Your task to perform on an android device: Go to calendar. Show me events next week Image 0: 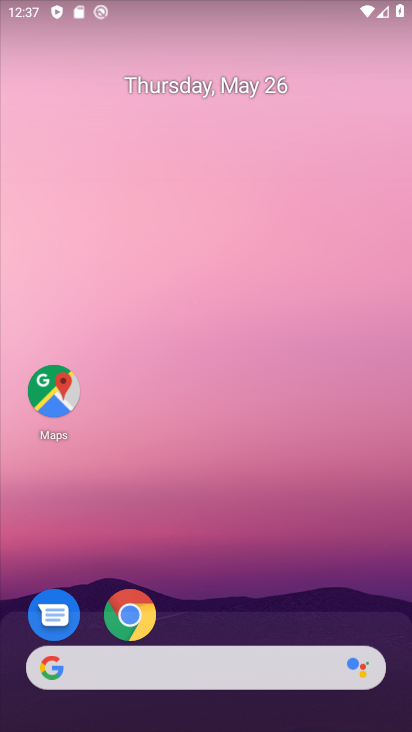
Step 0: drag from (264, 633) to (335, 134)
Your task to perform on an android device: Go to calendar. Show me events next week Image 1: 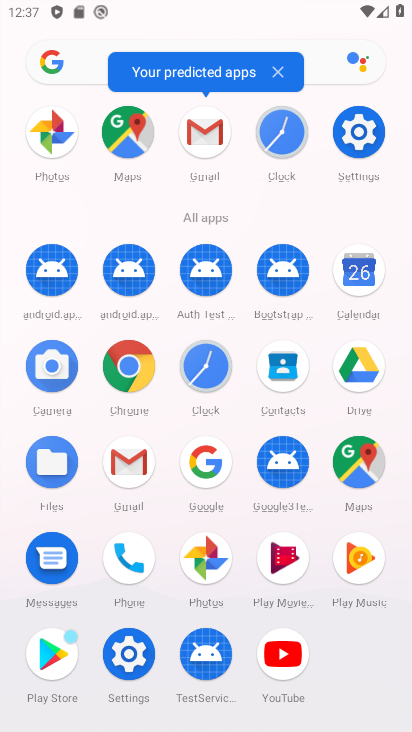
Step 1: click (356, 271)
Your task to perform on an android device: Go to calendar. Show me events next week Image 2: 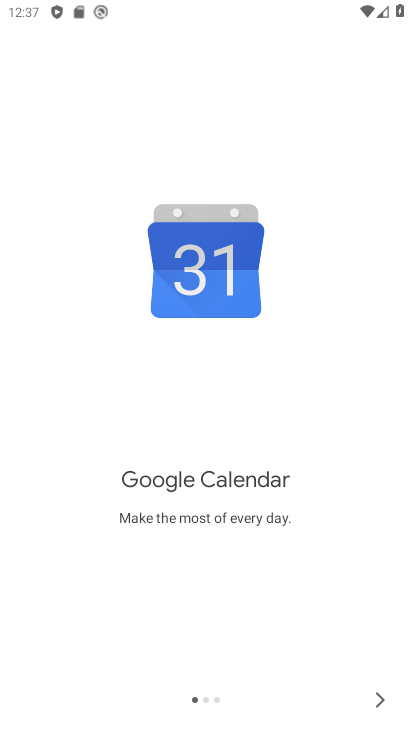
Step 2: click (377, 711)
Your task to perform on an android device: Go to calendar. Show me events next week Image 3: 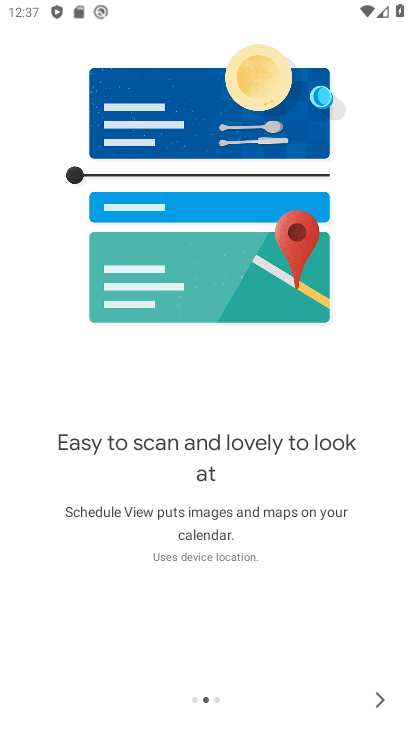
Step 3: click (380, 705)
Your task to perform on an android device: Go to calendar. Show me events next week Image 4: 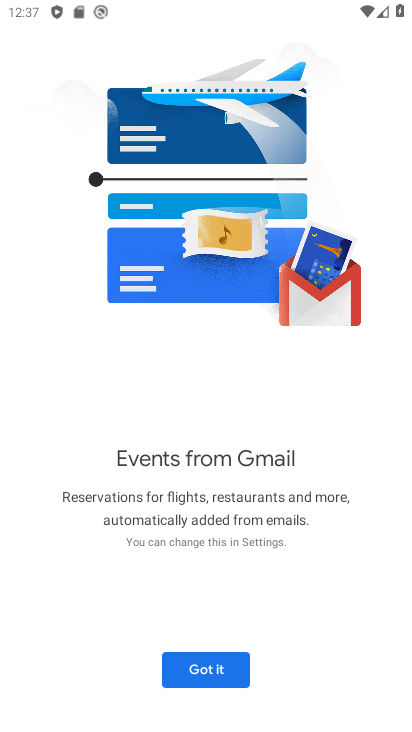
Step 4: click (222, 664)
Your task to perform on an android device: Go to calendar. Show me events next week Image 5: 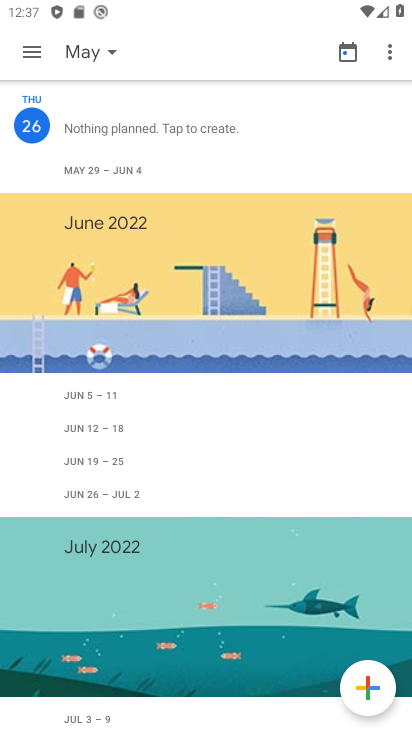
Step 5: drag from (184, 637) to (217, 662)
Your task to perform on an android device: Go to calendar. Show me events next week Image 6: 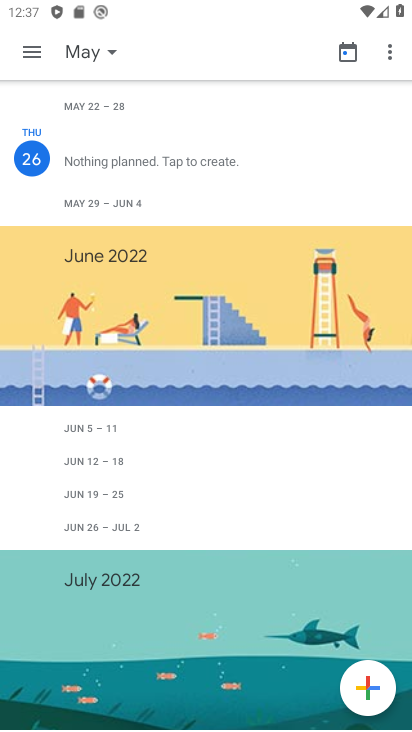
Step 6: click (34, 53)
Your task to perform on an android device: Go to calendar. Show me events next week Image 7: 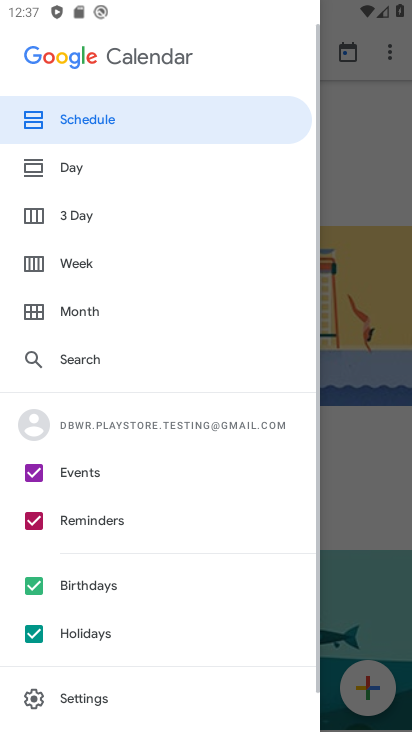
Step 7: click (80, 116)
Your task to perform on an android device: Go to calendar. Show me events next week Image 8: 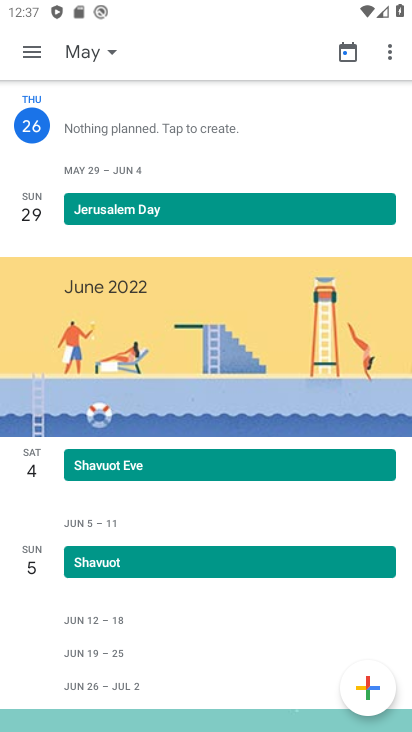
Step 8: click (78, 51)
Your task to perform on an android device: Go to calendar. Show me events next week Image 9: 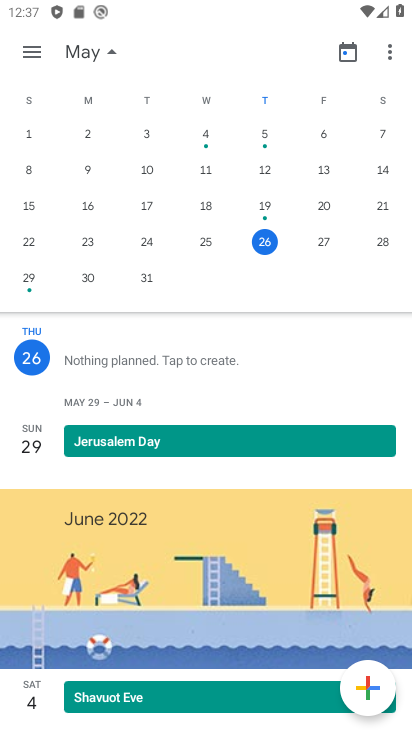
Step 9: click (81, 284)
Your task to perform on an android device: Go to calendar. Show me events next week Image 10: 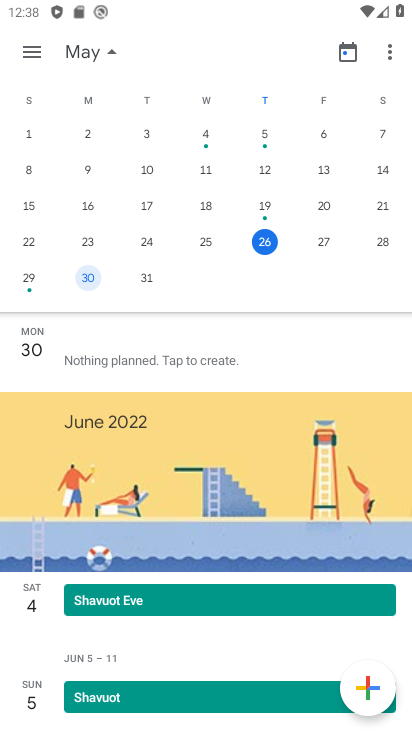
Step 10: task complete